Your task to perform on an android device: remove spam from my inbox in the gmail app Image 0: 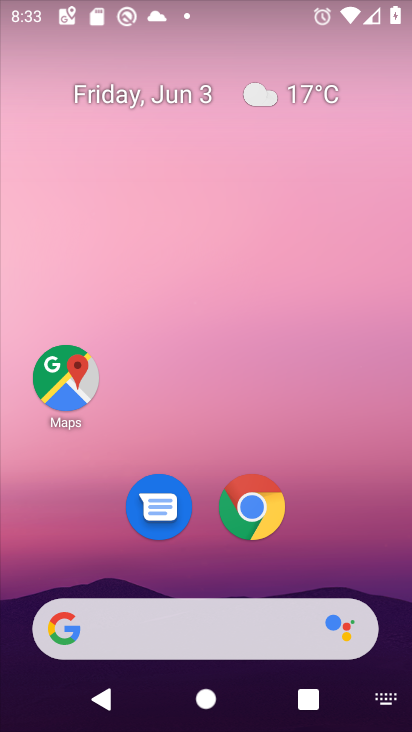
Step 0: drag from (350, 569) to (176, 26)
Your task to perform on an android device: remove spam from my inbox in the gmail app Image 1: 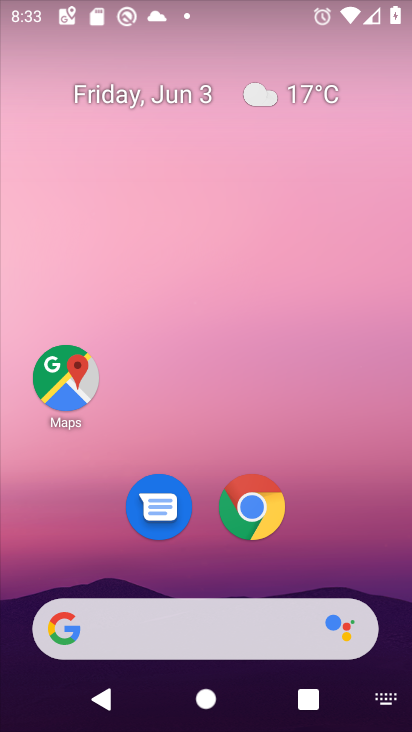
Step 1: drag from (367, 525) to (177, 7)
Your task to perform on an android device: remove spam from my inbox in the gmail app Image 2: 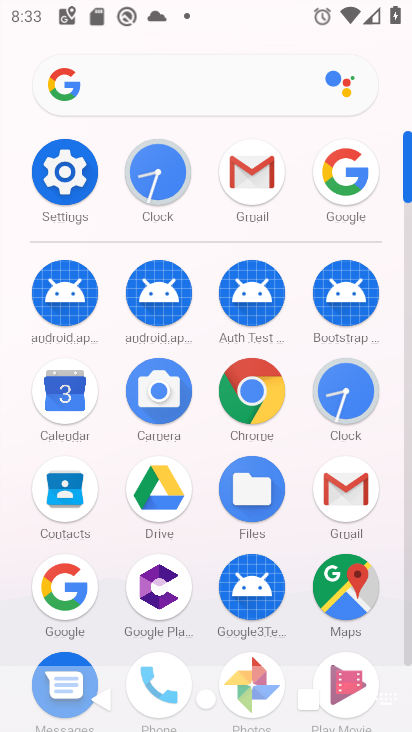
Step 2: click (366, 497)
Your task to perform on an android device: remove spam from my inbox in the gmail app Image 3: 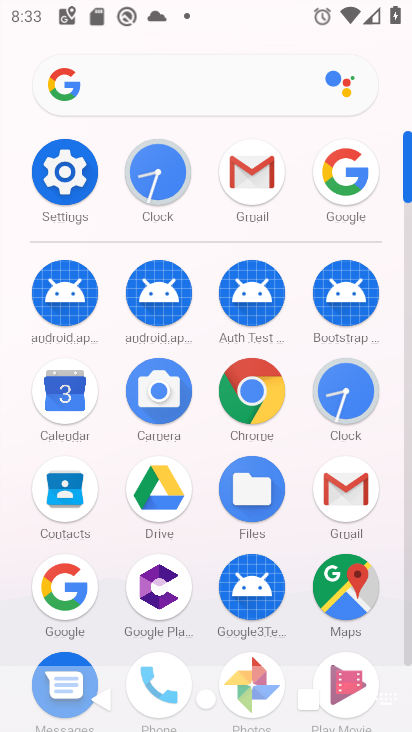
Step 3: click (354, 472)
Your task to perform on an android device: remove spam from my inbox in the gmail app Image 4: 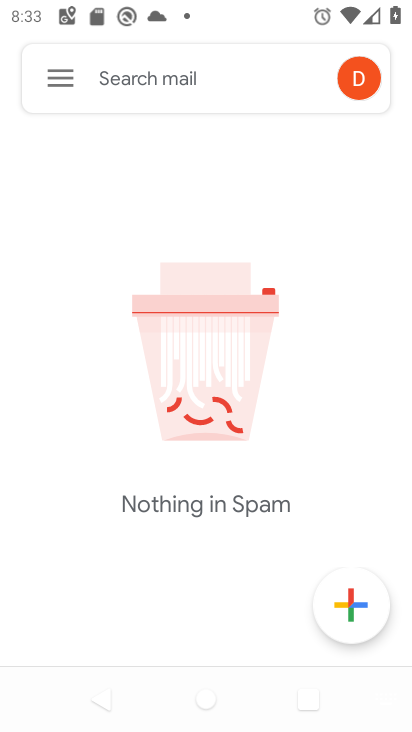
Step 4: click (63, 83)
Your task to perform on an android device: remove spam from my inbox in the gmail app Image 5: 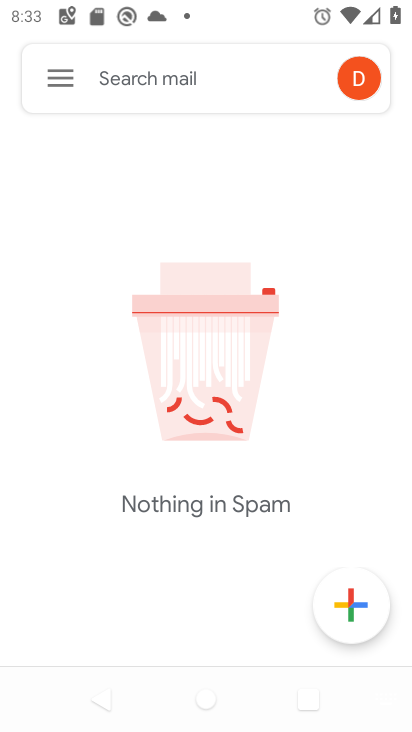
Step 5: task complete
Your task to perform on an android device: remove spam from my inbox in the gmail app Image 6: 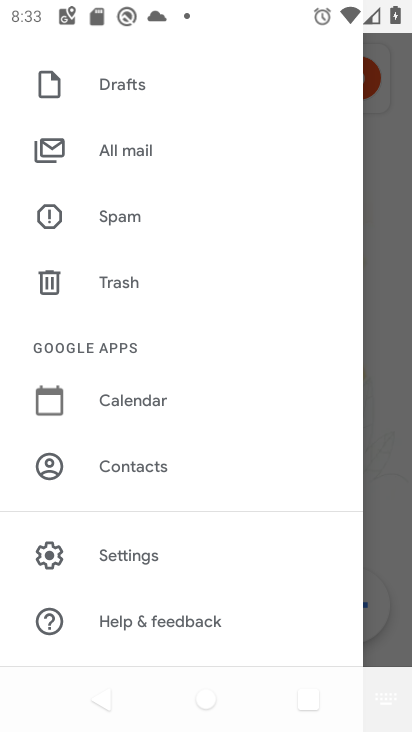
Step 6: click (139, 214)
Your task to perform on an android device: remove spam from my inbox in the gmail app Image 7: 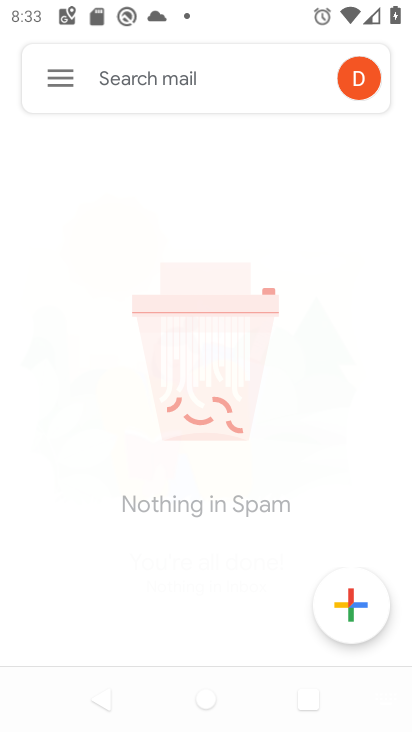
Step 7: task complete